Your task to perform on an android device: turn off translation in the chrome app Image 0: 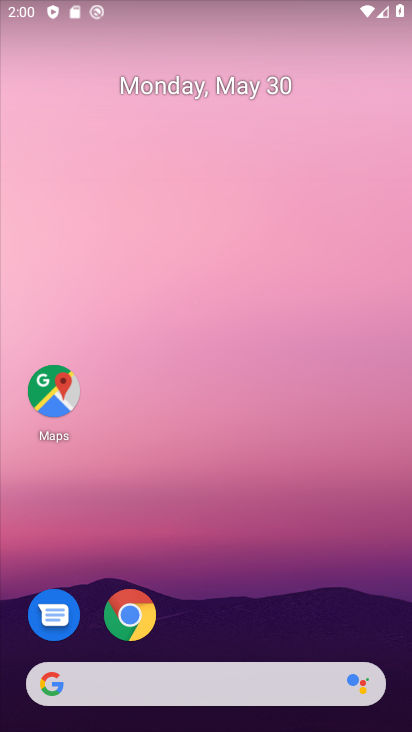
Step 0: click (141, 626)
Your task to perform on an android device: turn off translation in the chrome app Image 1: 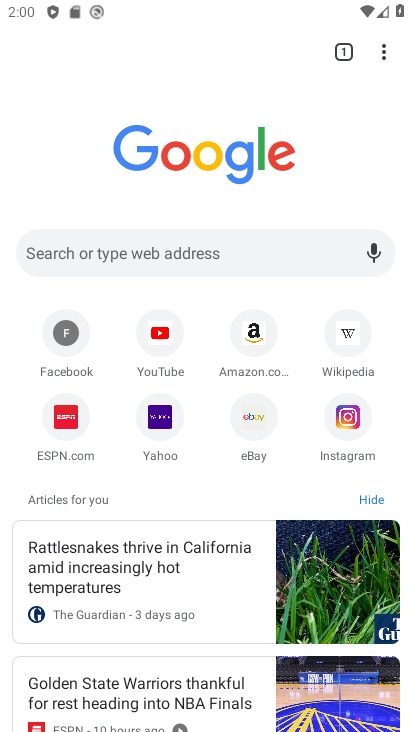
Step 1: drag from (381, 57) to (309, 460)
Your task to perform on an android device: turn off translation in the chrome app Image 2: 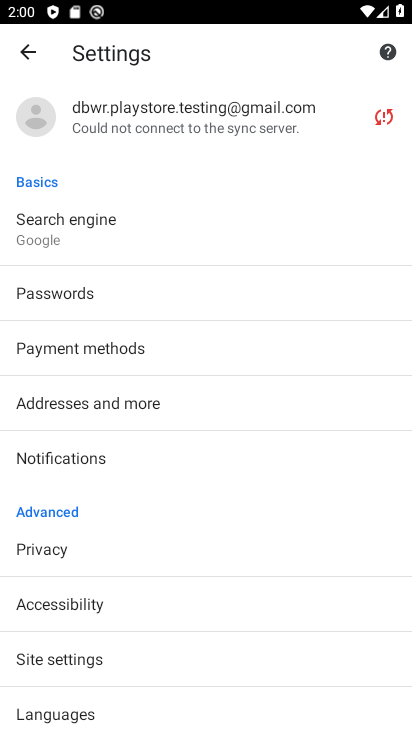
Step 2: drag from (169, 658) to (297, 182)
Your task to perform on an android device: turn off translation in the chrome app Image 3: 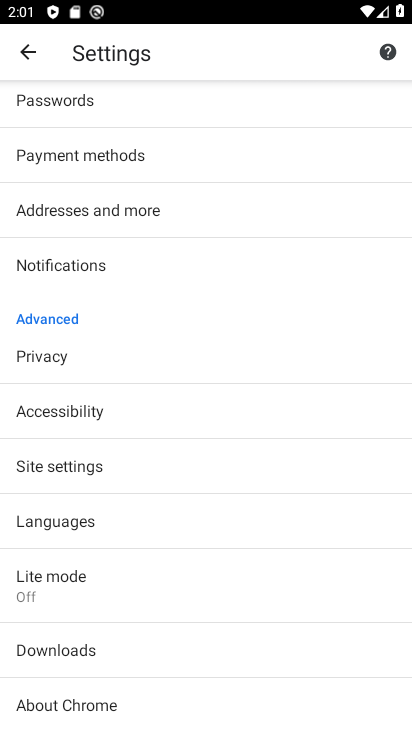
Step 3: click (144, 529)
Your task to perform on an android device: turn off translation in the chrome app Image 4: 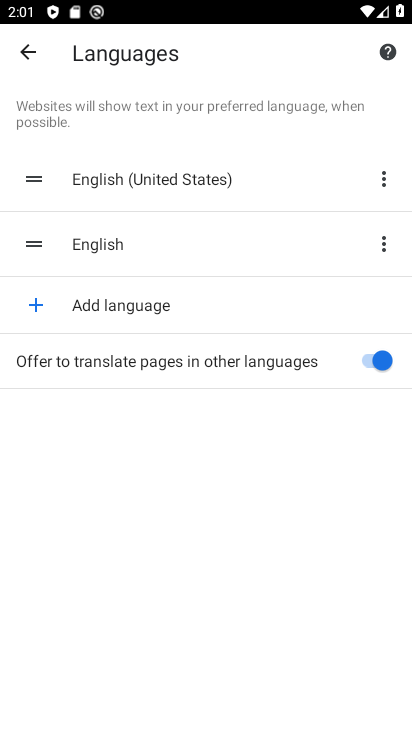
Step 4: click (371, 360)
Your task to perform on an android device: turn off translation in the chrome app Image 5: 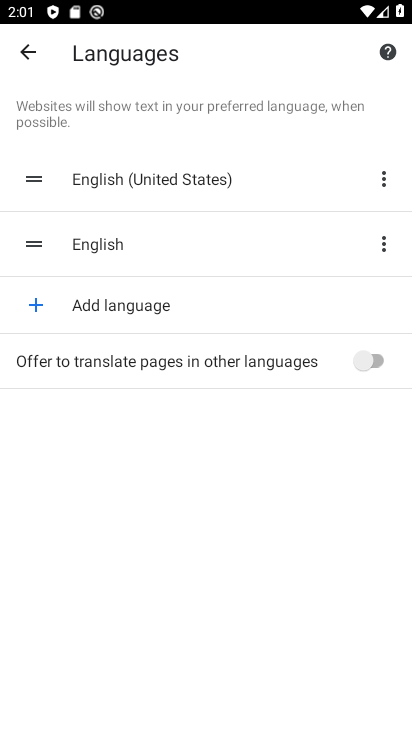
Step 5: task complete